Your task to perform on an android device: toggle translation in the chrome app Image 0: 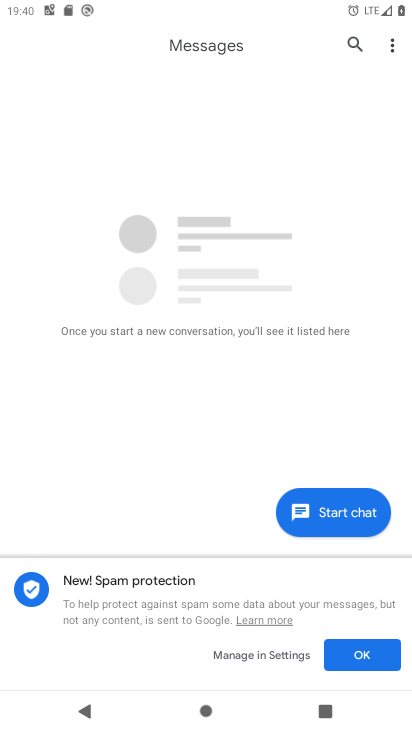
Step 0: click (283, 588)
Your task to perform on an android device: toggle translation in the chrome app Image 1: 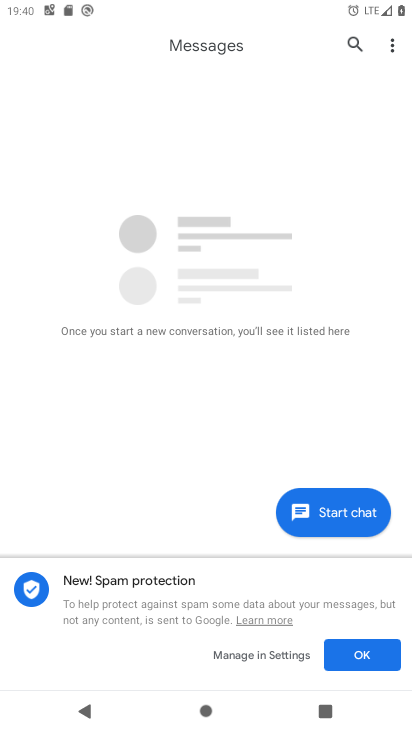
Step 1: press home button
Your task to perform on an android device: toggle translation in the chrome app Image 2: 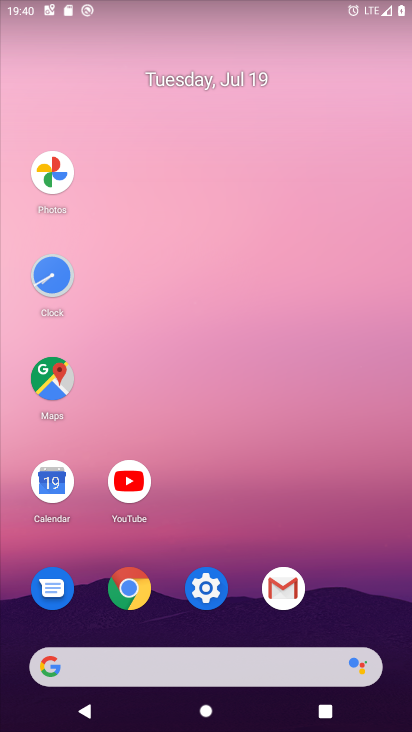
Step 2: click (128, 583)
Your task to perform on an android device: toggle translation in the chrome app Image 3: 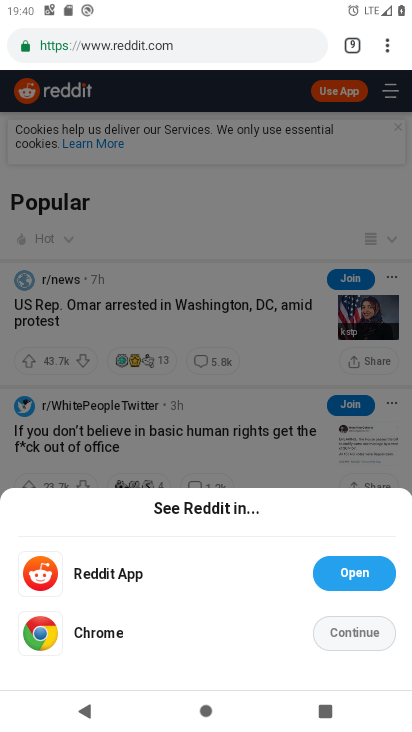
Step 3: click (385, 40)
Your task to perform on an android device: toggle translation in the chrome app Image 4: 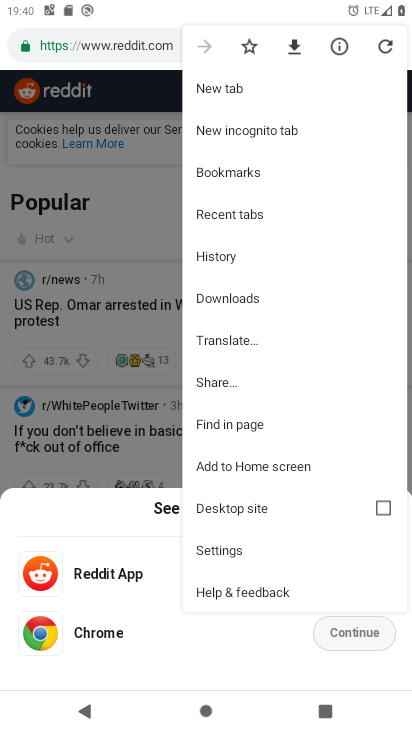
Step 4: click (223, 548)
Your task to perform on an android device: toggle translation in the chrome app Image 5: 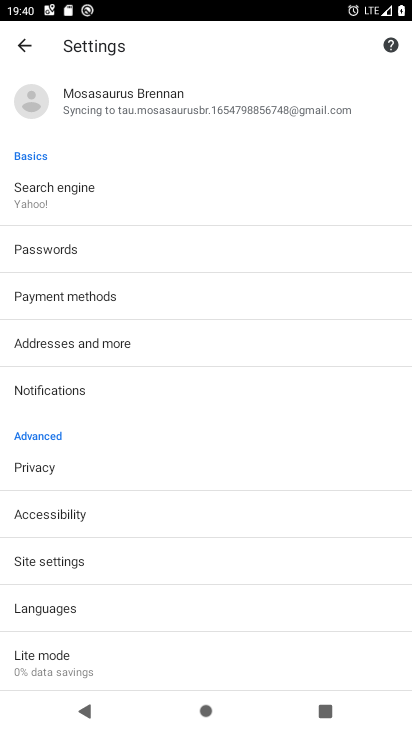
Step 5: click (60, 607)
Your task to perform on an android device: toggle translation in the chrome app Image 6: 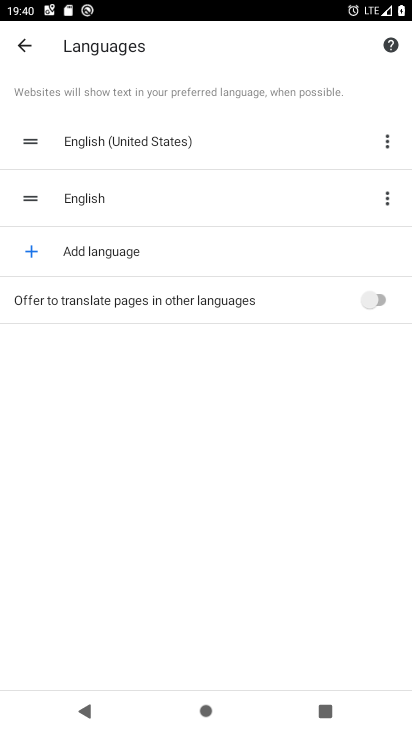
Step 6: click (369, 294)
Your task to perform on an android device: toggle translation in the chrome app Image 7: 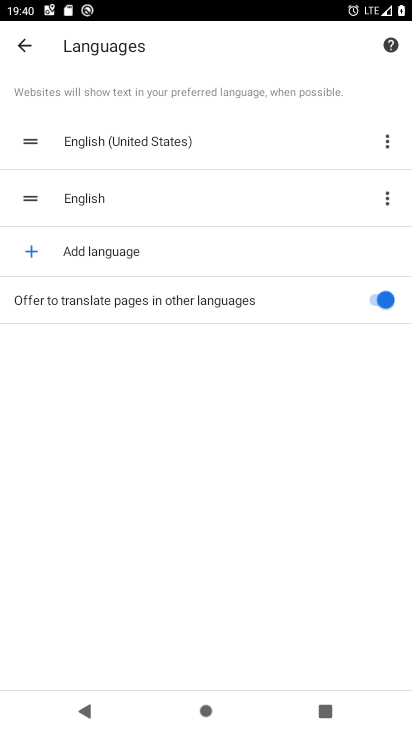
Step 7: task complete